Your task to perform on an android device: Open Android settings Image 0: 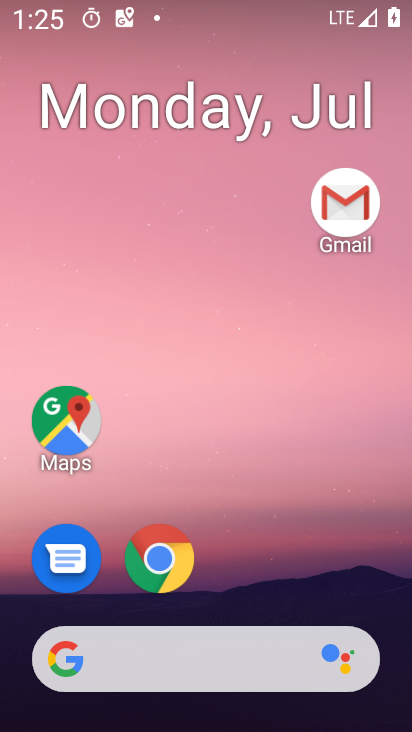
Step 0: drag from (293, 581) to (297, 78)
Your task to perform on an android device: Open Android settings Image 1: 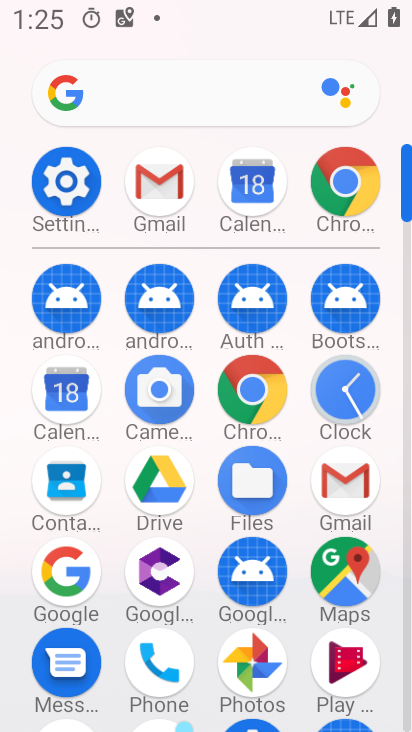
Step 1: click (53, 201)
Your task to perform on an android device: Open Android settings Image 2: 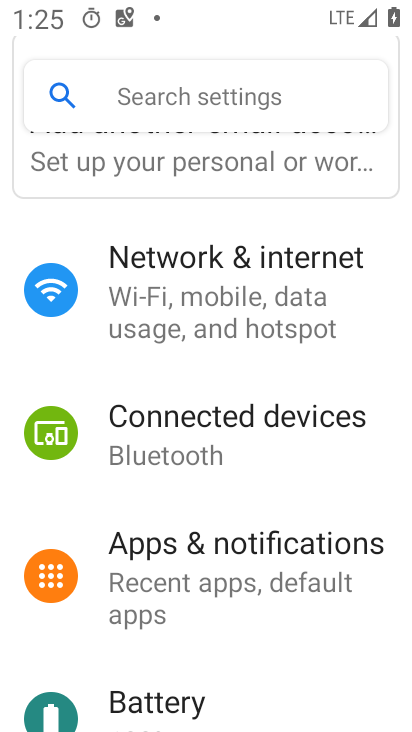
Step 2: drag from (344, 480) to (345, 405)
Your task to perform on an android device: Open Android settings Image 3: 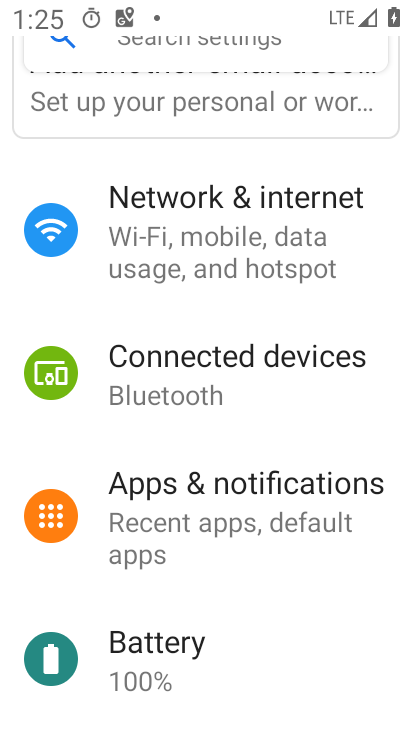
Step 3: drag from (334, 535) to (337, 421)
Your task to perform on an android device: Open Android settings Image 4: 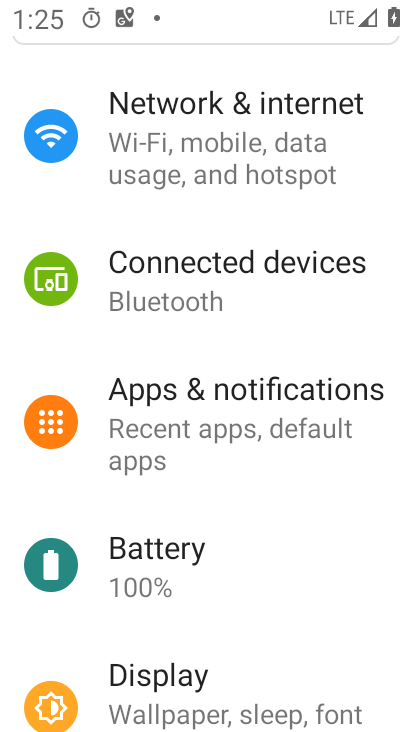
Step 4: drag from (327, 541) to (331, 435)
Your task to perform on an android device: Open Android settings Image 5: 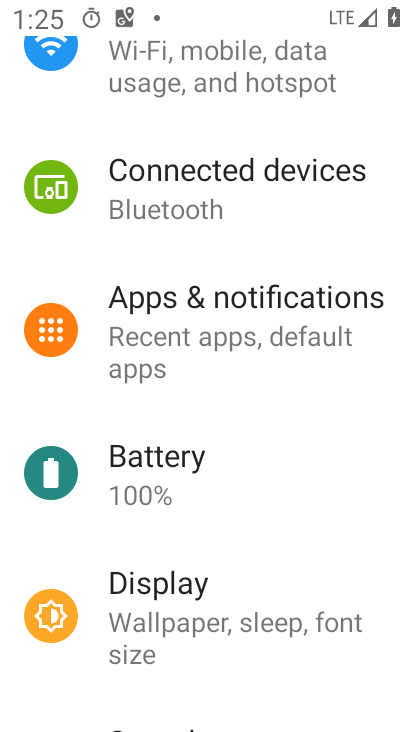
Step 5: drag from (332, 535) to (332, 433)
Your task to perform on an android device: Open Android settings Image 6: 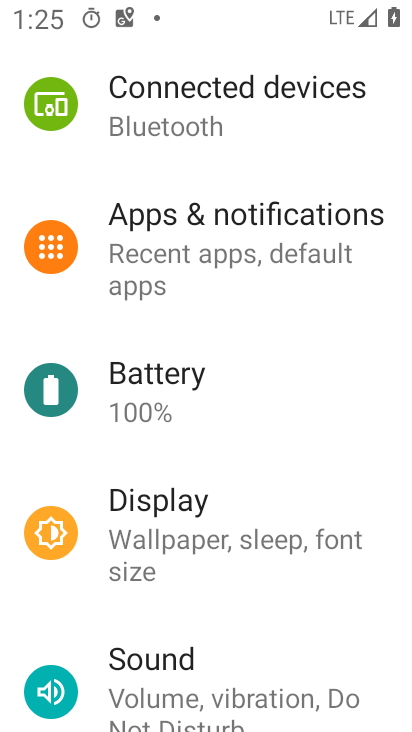
Step 6: drag from (327, 578) to (327, 481)
Your task to perform on an android device: Open Android settings Image 7: 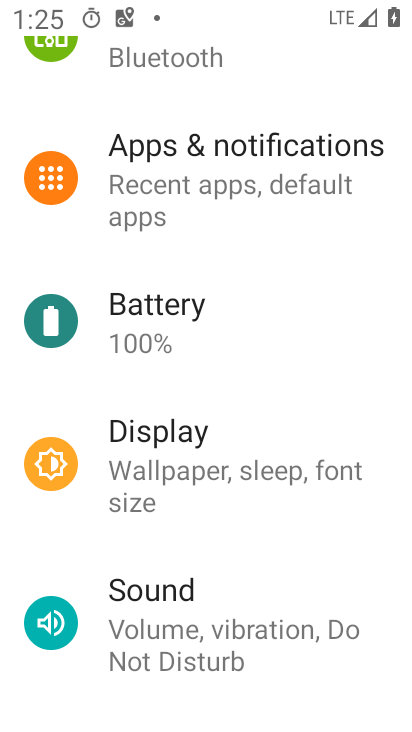
Step 7: drag from (322, 561) to (331, 451)
Your task to perform on an android device: Open Android settings Image 8: 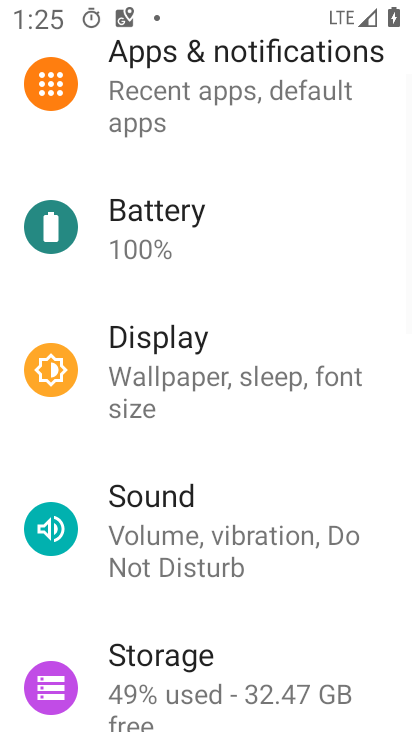
Step 8: drag from (332, 596) to (336, 488)
Your task to perform on an android device: Open Android settings Image 9: 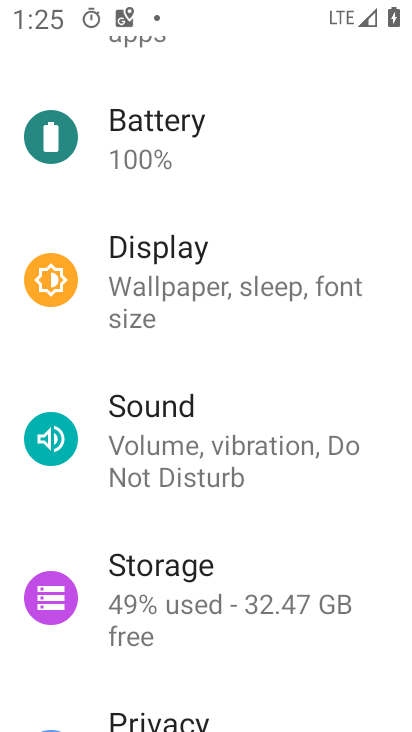
Step 9: drag from (330, 584) to (328, 474)
Your task to perform on an android device: Open Android settings Image 10: 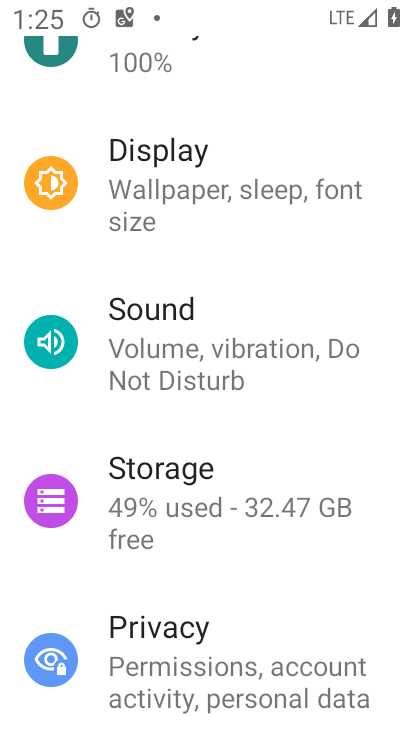
Step 10: drag from (328, 575) to (335, 463)
Your task to perform on an android device: Open Android settings Image 11: 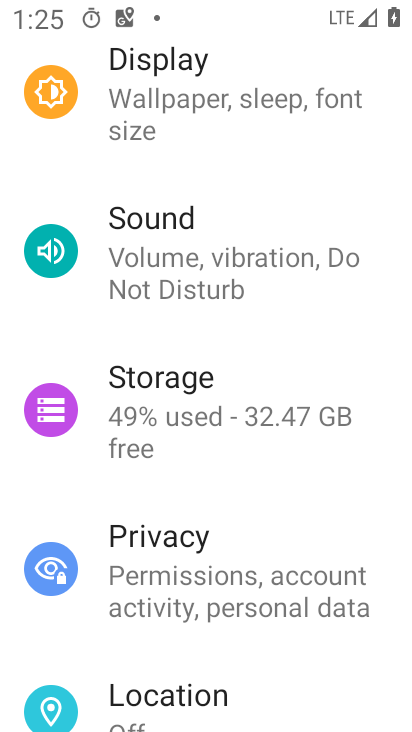
Step 11: drag from (334, 589) to (339, 480)
Your task to perform on an android device: Open Android settings Image 12: 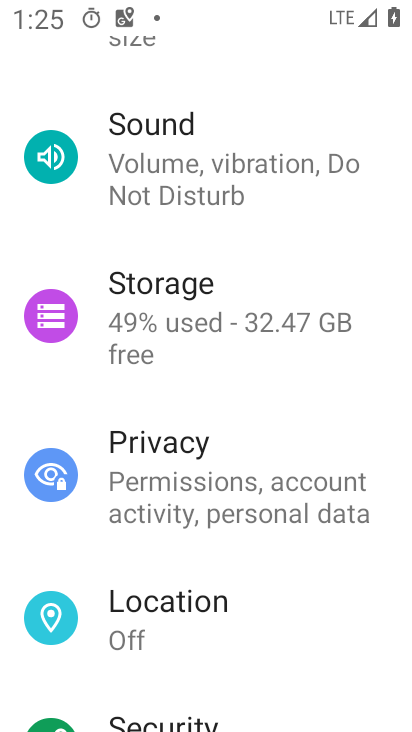
Step 12: drag from (339, 575) to (339, 456)
Your task to perform on an android device: Open Android settings Image 13: 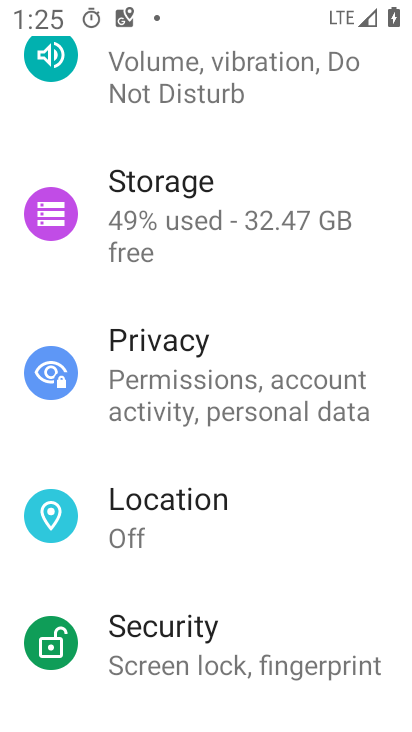
Step 13: drag from (323, 559) to (323, 437)
Your task to perform on an android device: Open Android settings Image 14: 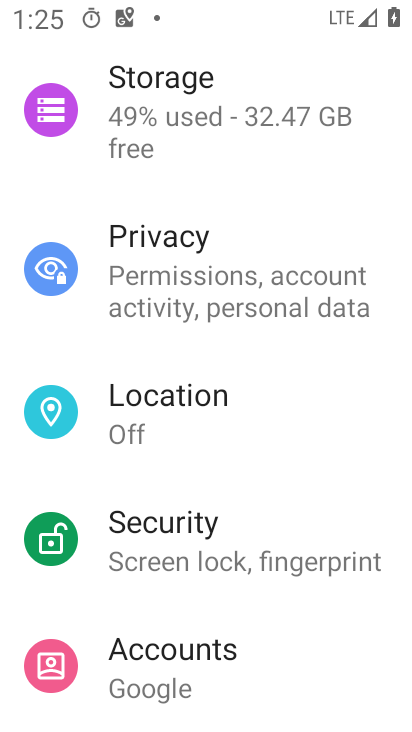
Step 14: drag from (322, 542) to (326, 427)
Your task to perform on an android device: Open Android settings Image 15: 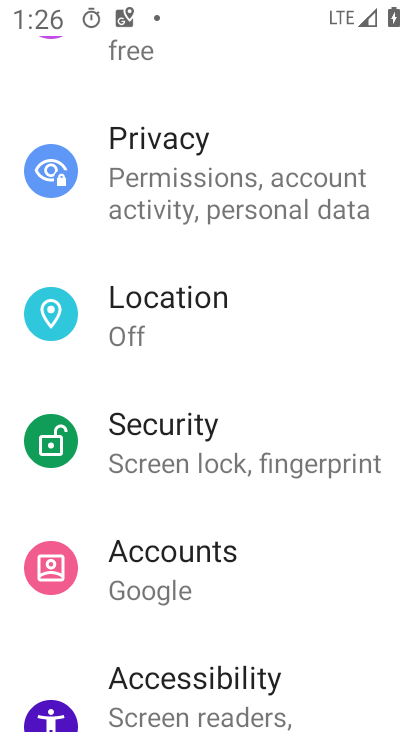
Step 15: drag from (319, 503) to (321, 399)
Your task to perform on an android device: Open Android settings Image 16: 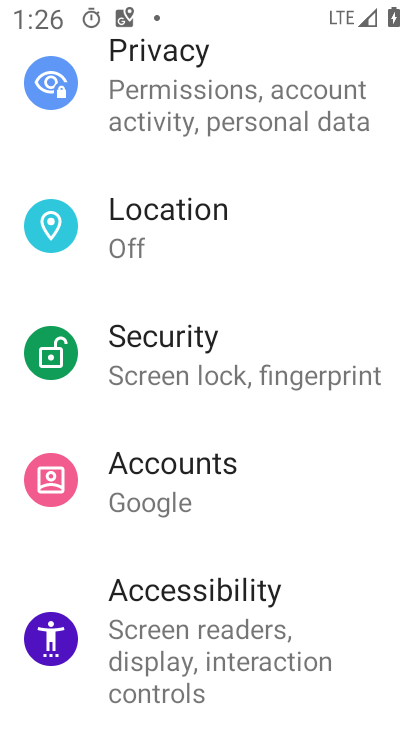
Step 16: drag from (304, 507) to (321, 403)
Your task to perform on an android device: Open Android settings Image 17: 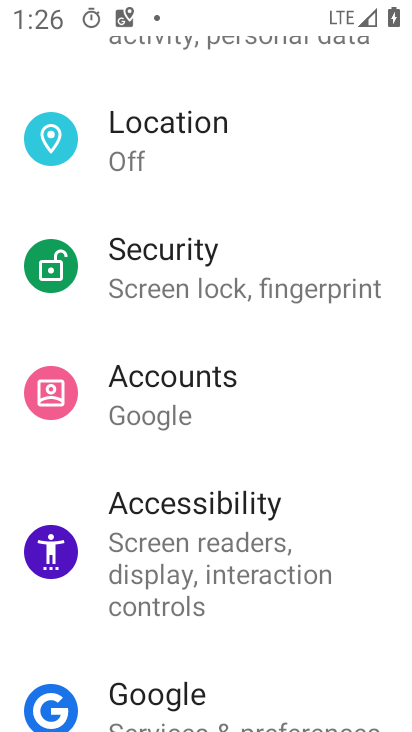
Step 17: drag from (334, 547) to (354, 433)
Your task to perform on an android device: Open Android settings Image 18: 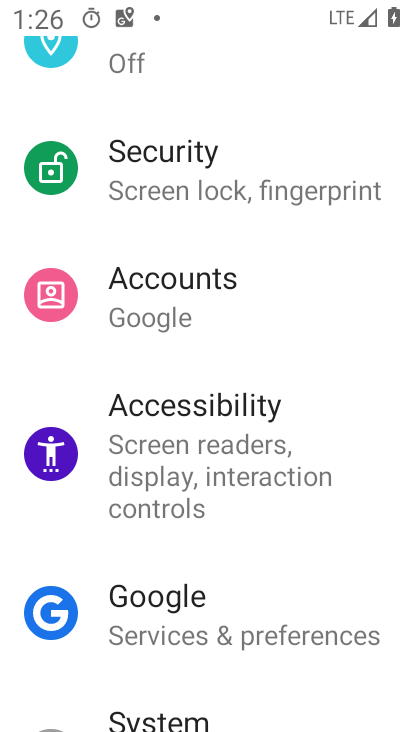
Step 18: drag from (348, 548) to (356, 421)
Your task to perform on an android device: Open Android settings Image 19: 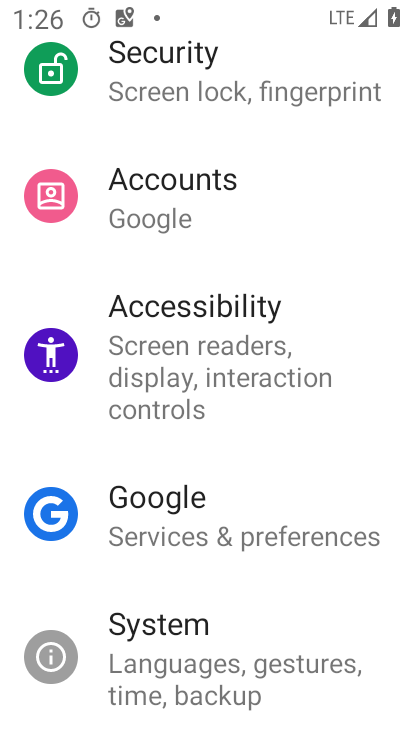
Step 19: drag from (359, 586) to (359, 422)
Your task to perform on an android device: Open Android settings Image 20: 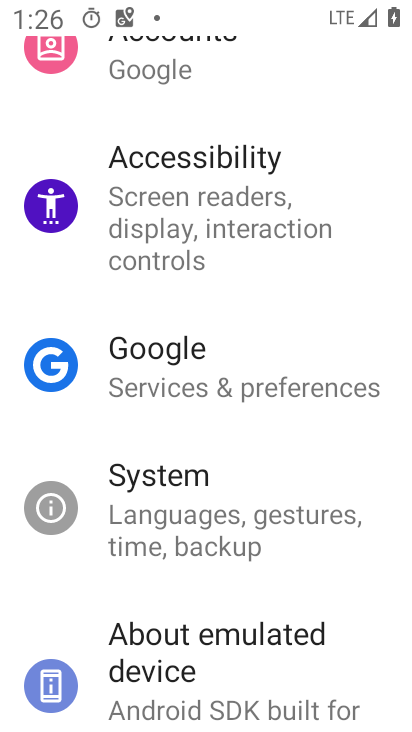
Step 20: click (332, 495)
Your task to perform on an android device: Open Android settings Image 21: 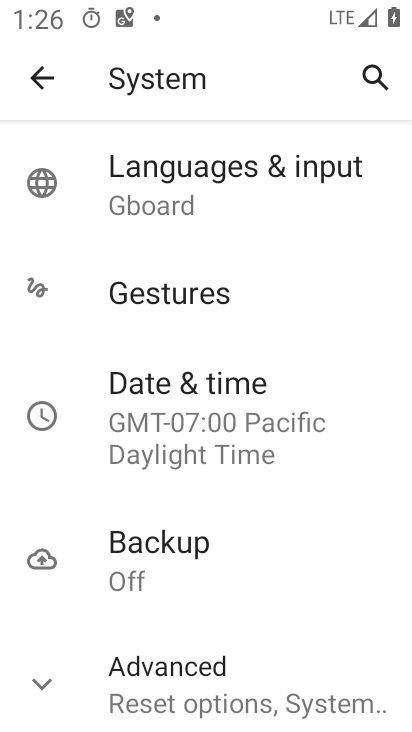
Step 21: click (263, 674)
Your task to perform on an android device: Open Android settings Image 22: 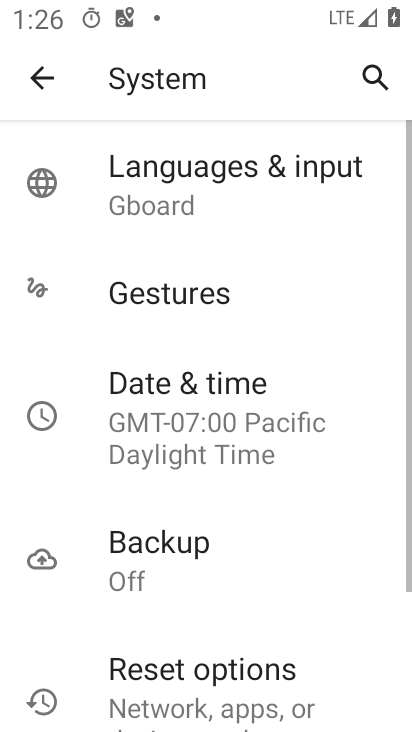
Step 22: task complete